Your task to perform on an android device: toggle show notifications on the lock screen Image 0: 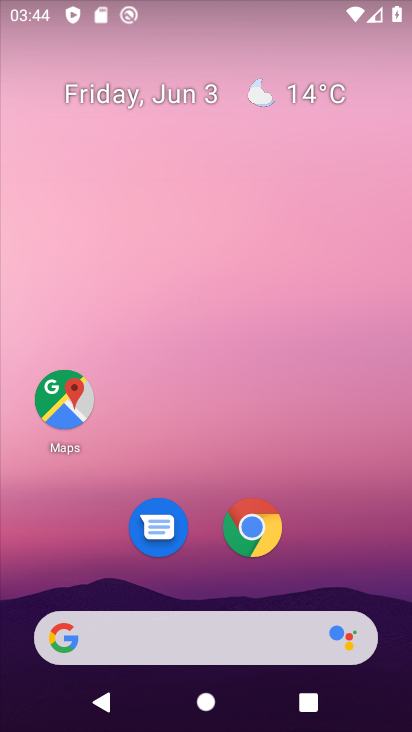
Step 0: drag from (351, 501) to (265, 19)
Your task to perform on an android device: toggle show notifications on the lock screen Image 1: 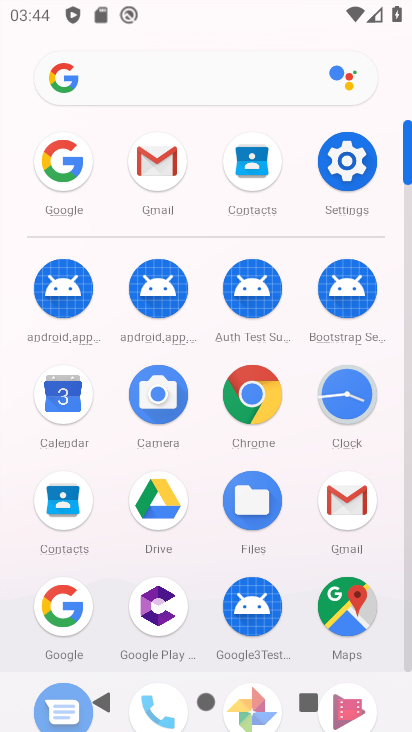
Step 1: click (347, 160)
Your task to perform on an android device: toggle show notifications on the lock screen Image 2: 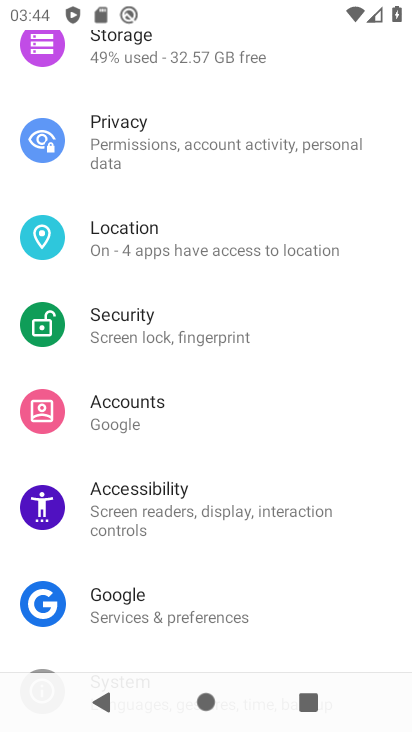
Step 2: drag from (238, 285) to (205, 433)
Your task to perform on an android device: toggle show notifications on the lock screen Image 3: 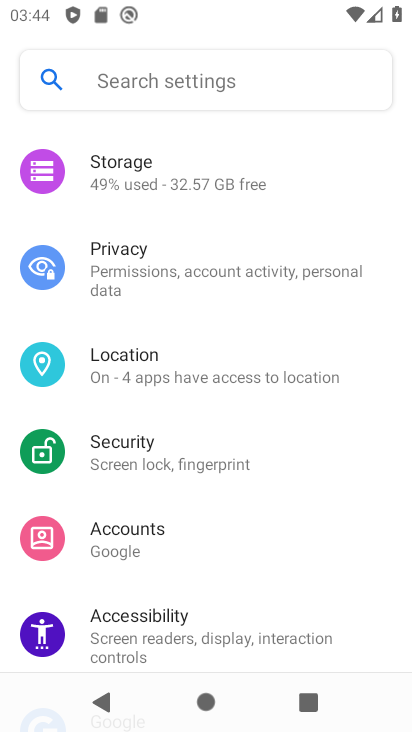
Step 3: drag from (232, 312) to (234, 451)
Your task to perform on an android device: toggle show notifications on the lock screen Image 4: 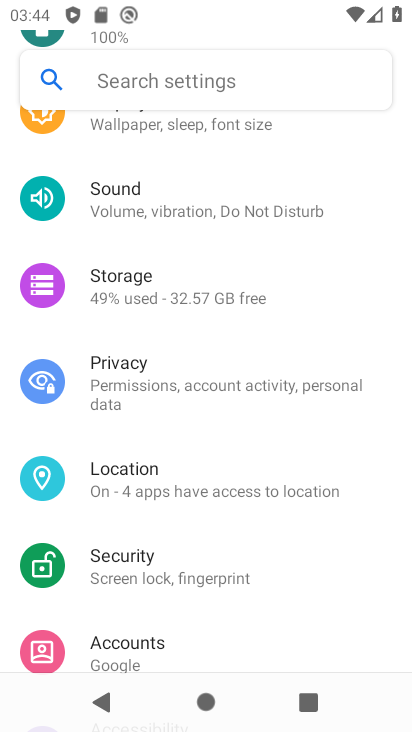
Step 4: drag from (239, 336) to (262, 471)
Your task to perform on an android device: toggle show notifications on the lock screen Image 5: 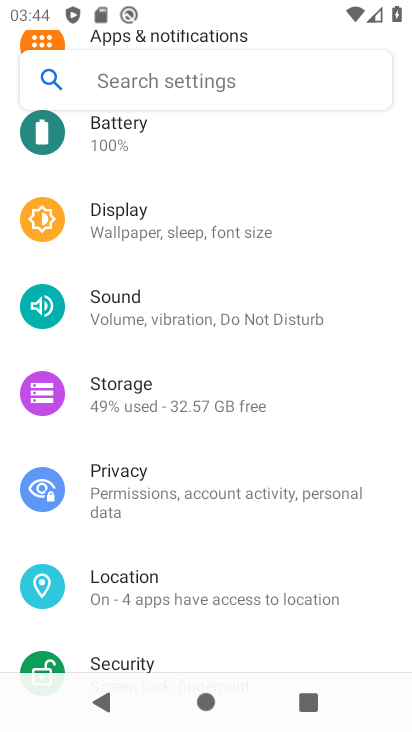
Step 5: drag from (256, 346) to (277, 468)
Your task to perform on an android device: toggle show notifications on the lock screen Image 6: 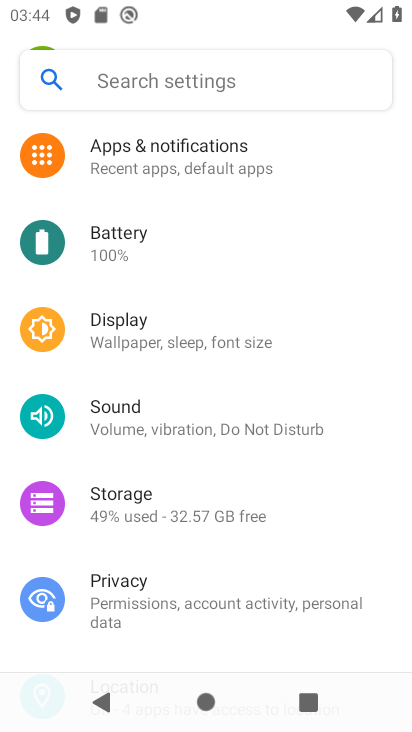
Step 6: drag from (230, 289) to (222, 409)
Your task to perform on an android device: toggle show notifications on the lock screen Image 7: 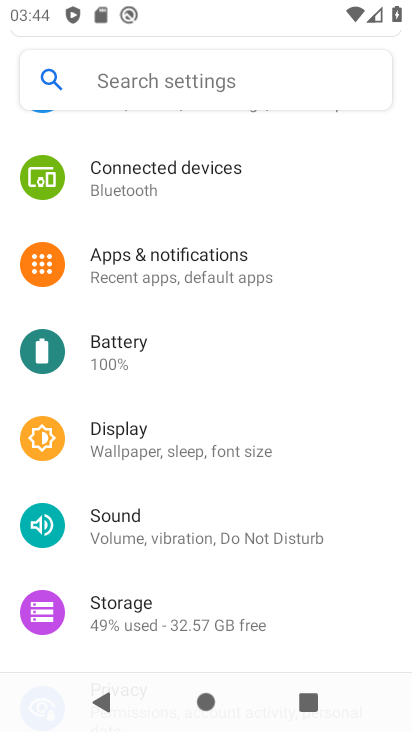
Step 7: click (243, 274)
Your task to perform on an android device: toggle show notifications on the lock screen Image 8: 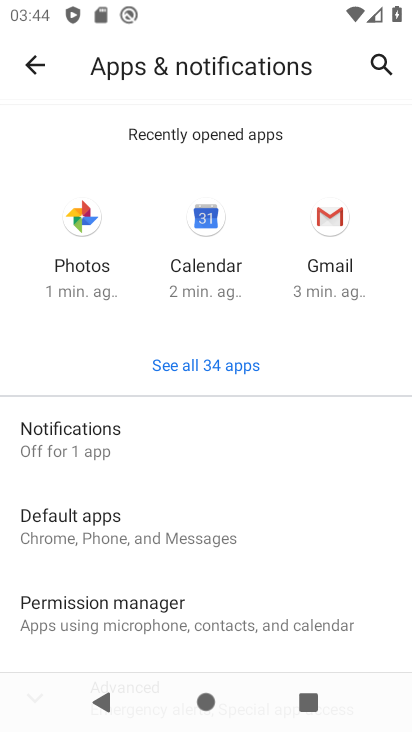
Step 8: click (105, 428)
Your task to perform on an android device: toggle show notifications on the lock screen Image 9: 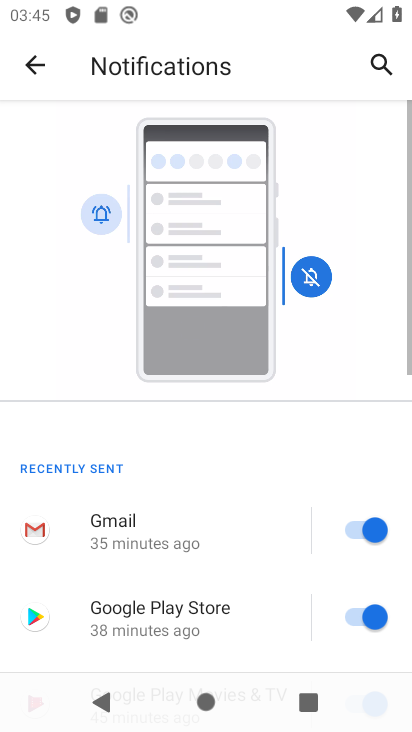
Step 9: click (243, 163)
Your task to perform on an android device: toggle show notifications on the lock screen Image 10: 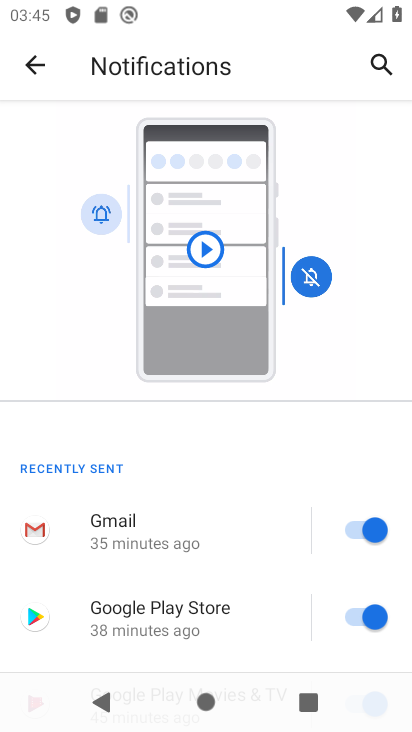
Step 10: drag from (206, 480) to (311, 0)
Your task to perform on an android device: toggle show notifications on the lock screen Image 11: 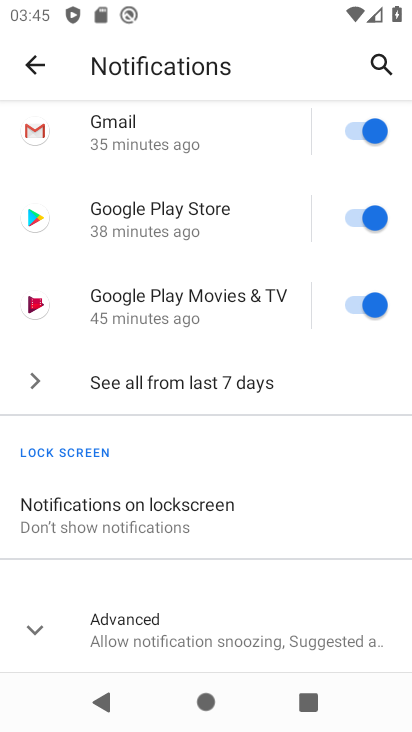
Step 11: click (136, 506)
Your task to perform on an android device: toggle show notifications on the lock screen Image 12: 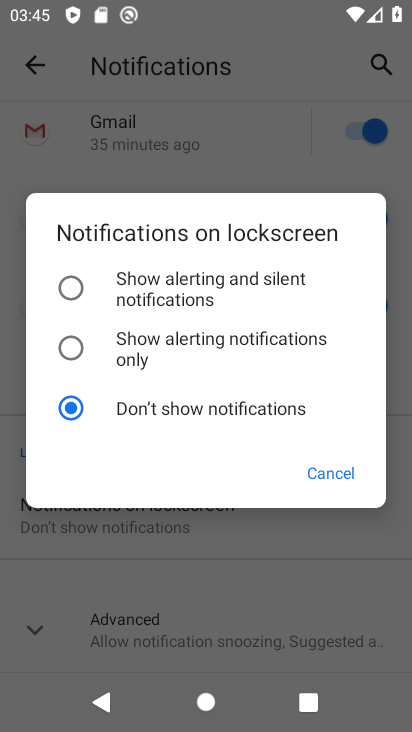
Step 12: click (69, 286)
Your task to perform on an android device: toggle show notifications on the lock screen Image 13: 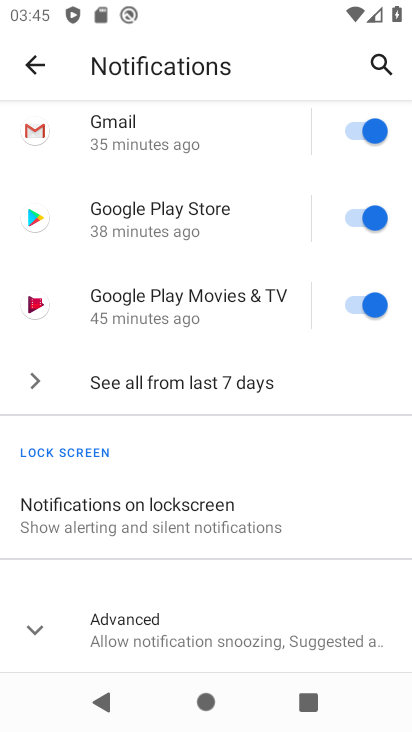
Step 13: task complete